Your task to perform on an android device: Open calendar and show me the third week of next month Image 0: 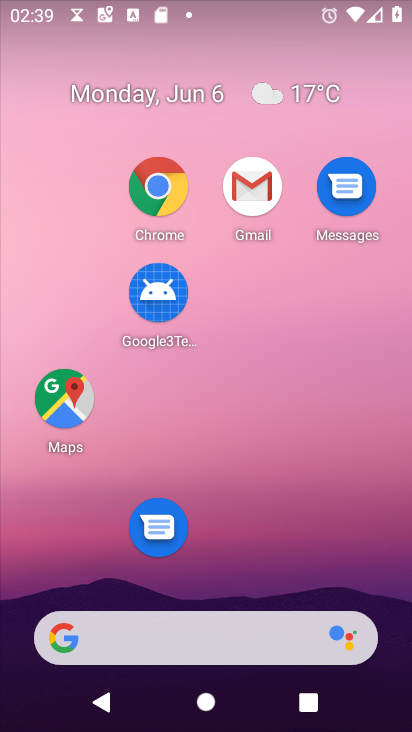
Step 0: drag from (315, 518) to (267, 224)
Your task to perform on an android device: Open calendar and show me the third week of next month Image 1: 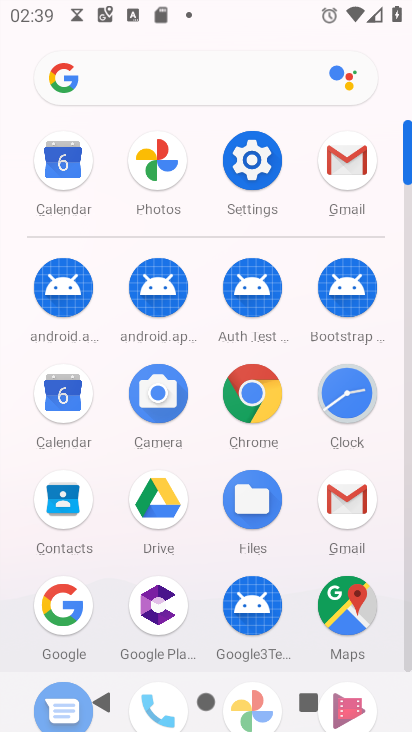
Step 1: click (66, 395)
Your task to perform on an android device: Open calendar and show me the third week of next month Image 2: 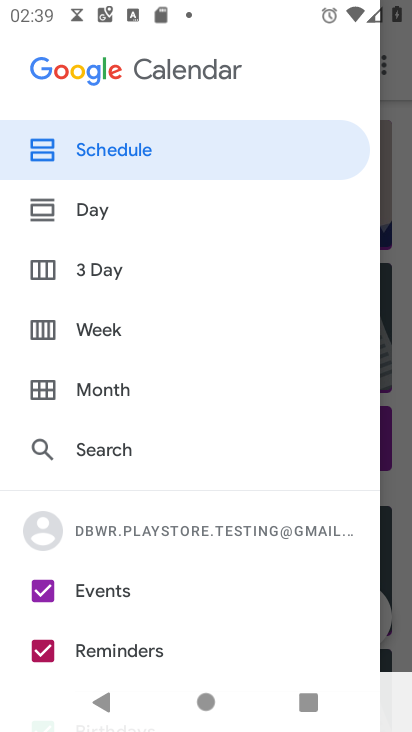
Step 2: click (76, 383)
Your task to perform on an android device: Open calendar and show me the third week of next month Image 3: 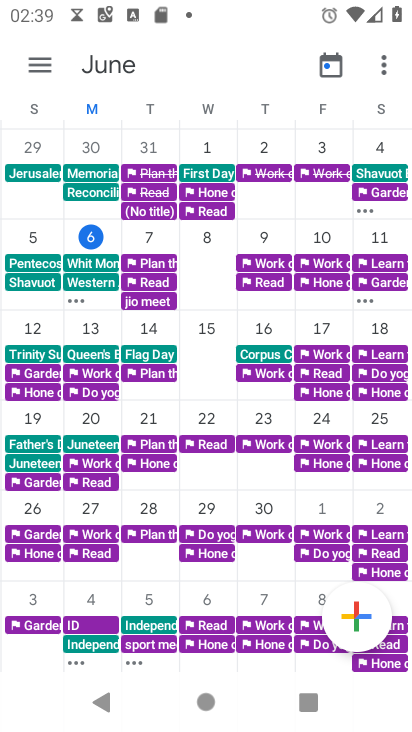
Step 3: task complete